Your task to perform on an android device: Set the phone to "Do not disturb". Image 0: 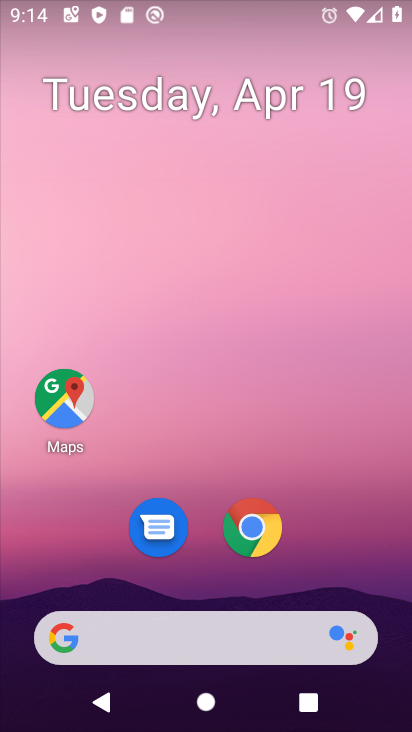
Step 0: drag from (321, 499) to (267, 147)
Your task to perform on an android device: Set the phone to "Do not disturb". Image 1: 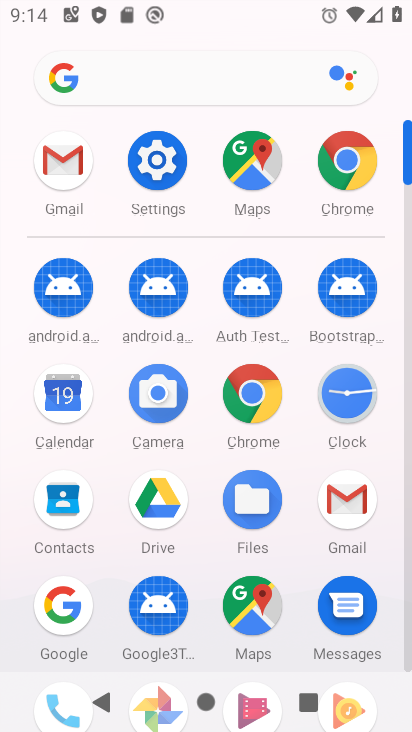
Step 1: drag from (232, 12) to (187, 561)
Your task to perform on an android device: Set the phone to "Do not disturb". Image 2: 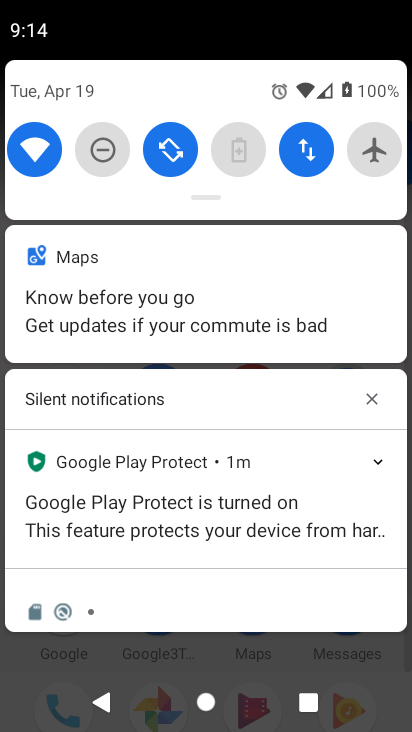
Step 2: click (102, 147)
Your task to perform on an android device: Set the phone to "Do not disturb". Image 3: 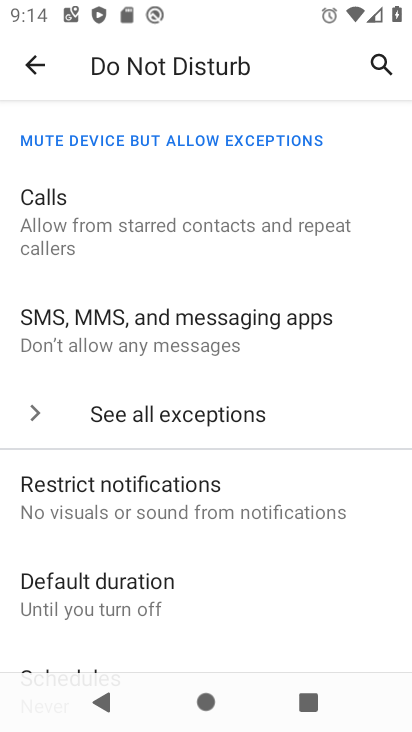
Step 3: drag from (232, 567) to (227, 120)
Your task to perform on an android device: Set the phone to "Do not disturb". Image 4: 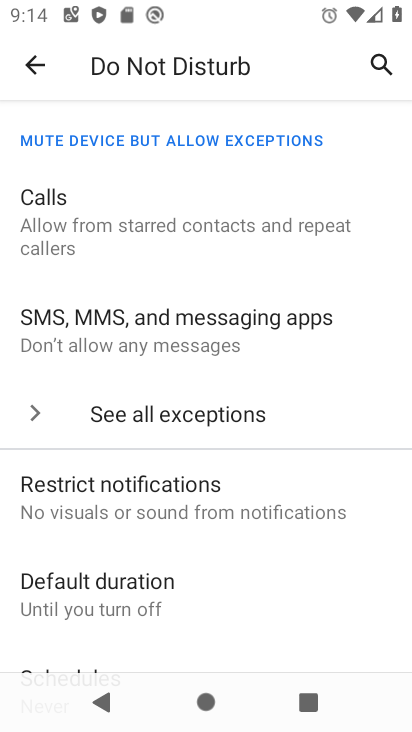
Step 4: drag from (219, 604) to (296, 149)
Your task to perform on an android device: Set the phone to "Do not disturb". Image 5: 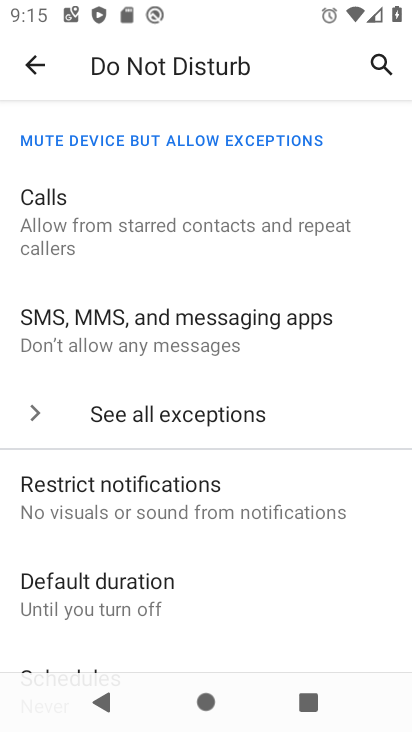
Step 5: drag from (165, 608) to (245, 116)
Your task to perform on an android device: Set the phone to "Do not disturb". Image 6: 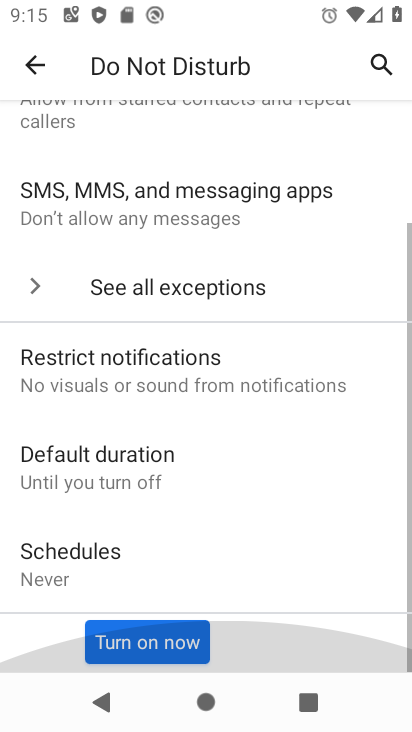
Step 6: drag from (220, 510) to (279, 139)
Your task to perform on an android device: Set the phone to "Do not disturb". Image 7: 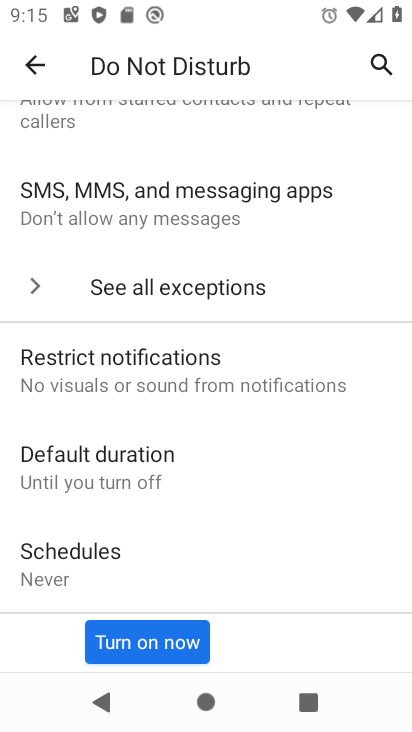
Step 7: click (138, 644)
Your task to perform on an android device: Set the phone to "Do not disturb". Image 8: 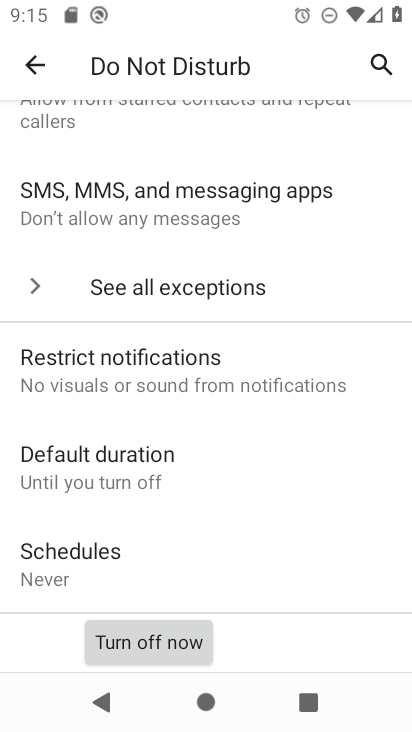
Step 8: task complete